Your task to perform on an android device: Find coffee shops on Maps Image 0: 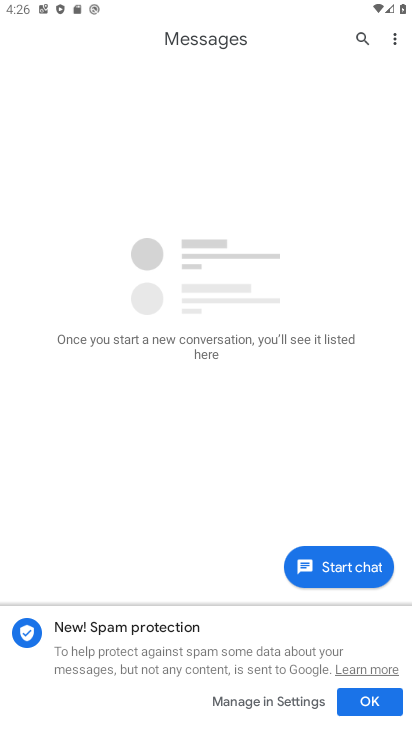
Step 0: press home button
Your task to perform on an android device: Find coffee shops on Maps Image 1: 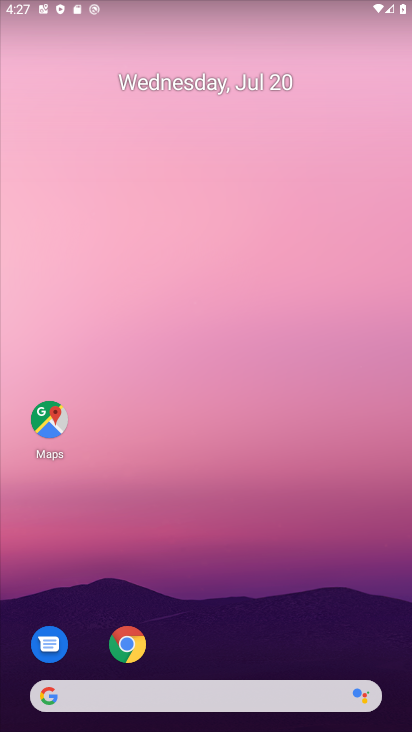
Step 1: click (52, 412)
Your task to perform on an android device: Find coffee shops on Maps Image 2: 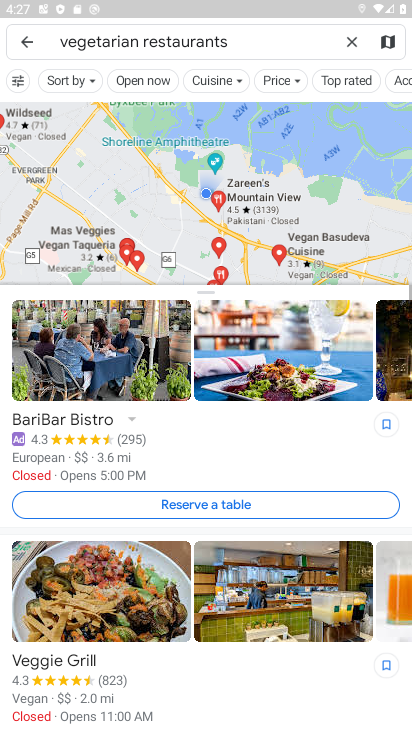
Step 2: click (354, 36)
Your task to perform on an android device: Find coffee shops on Maps Image 3: 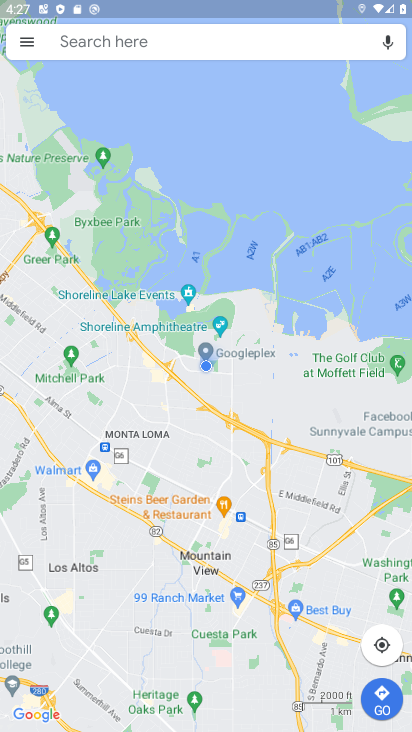
Step 3: click (265, 53)
Your task to perform on an android device: Find coffee shops on Maps Image 4: 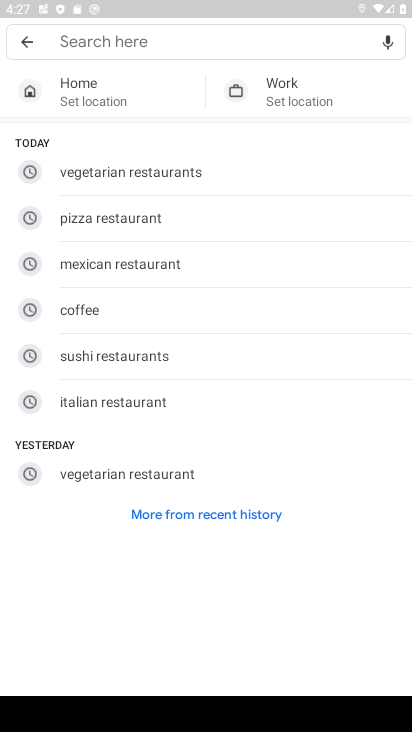
Step 4: type "Coffee shops"
Your task to perform on an android device: Find coffee shops on Maps Image 5: 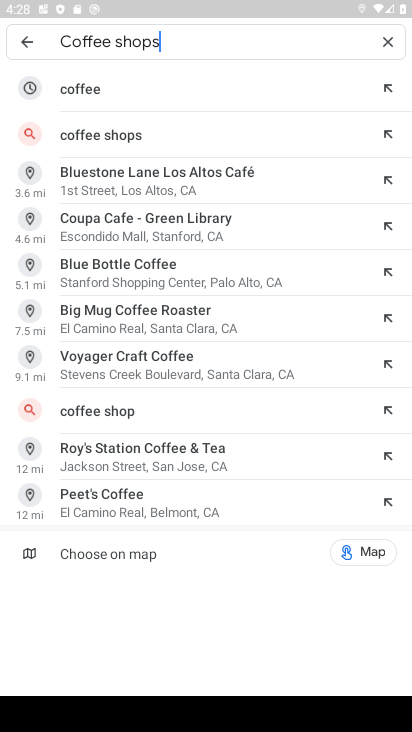
Step 5: click (157, 146)
Your task to perform on an android device: Find coffee shops on Maps Image 6: 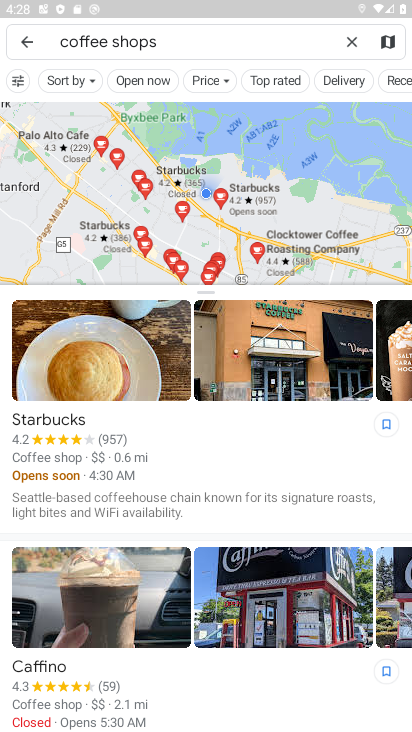
Step 6: task complete